Your task to perform on an android device: change the clock display to show seconds Image 0: 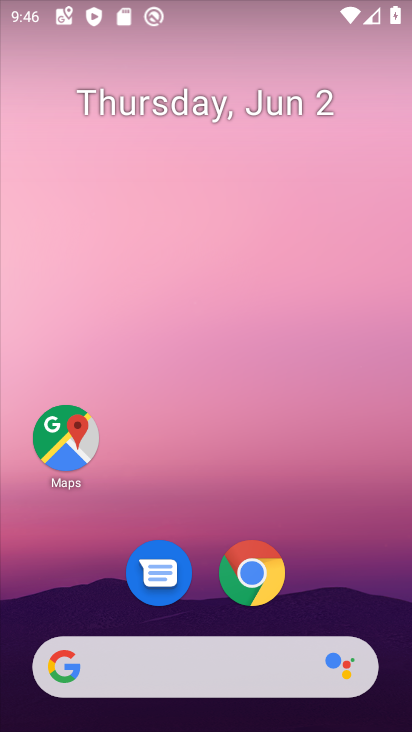
Step 0: drag from (364, 534) to (317, 81)
Your task to perform on an android device: change the clock display to show seconds Image 1: 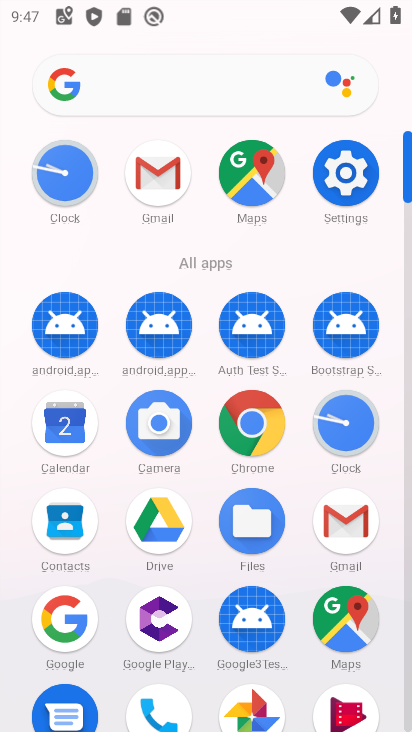
Step 1: click (353, 410)
Your task to perform on an android device: change the clock display to show seconds Image 2: 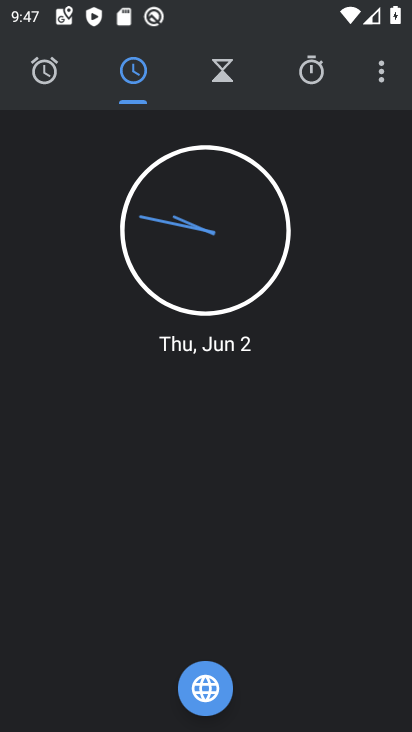
Step 2: click (379, 72)
Your task to perform on an android device: change the clock display to show seconds Image 3: 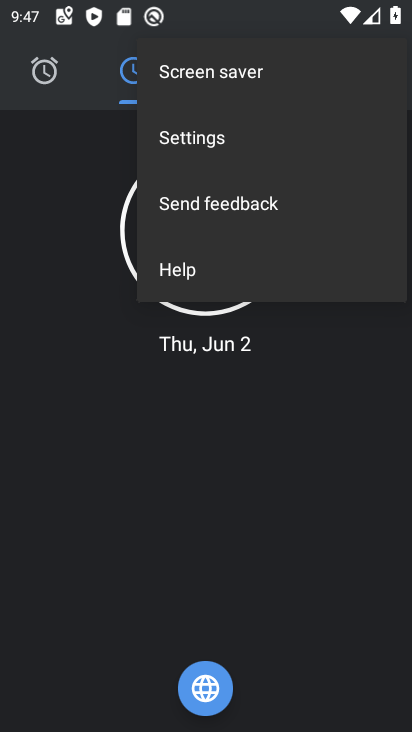
Step 3: click (223, 130)
Your task to perform on an android device: change the clock display to show seconds Image 4: 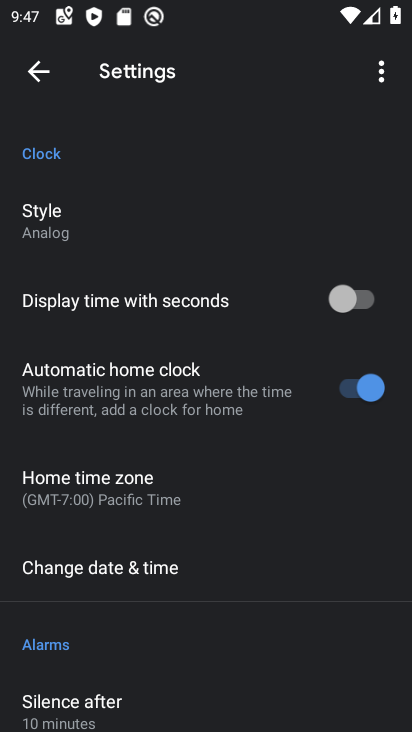
Step 4: click (369, 301)
Your task to perform on an android device: change the clock display to show seconds Image 5: 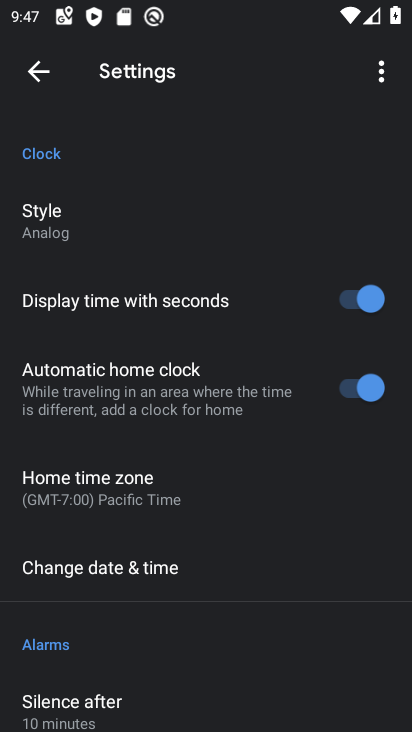
Step 5: task complete